Your task to perform on an android device: toggle javascript in the chrome app Image 0: 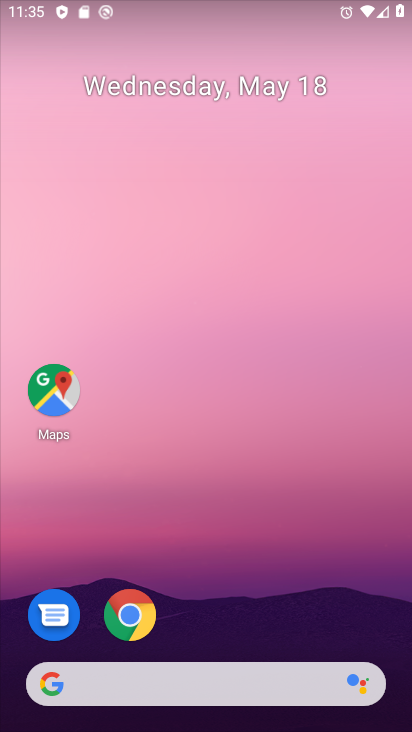
Step 0: click (119, 625)
Your task to perform on an android device: toggle javascript in the chrome app Image 1: 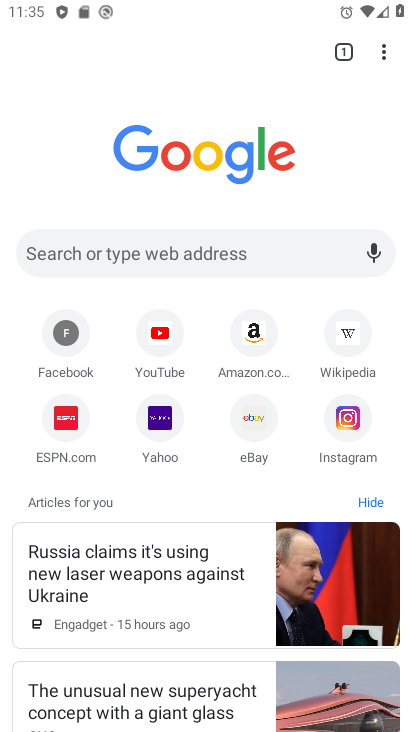
Step 1: click (393, 53)
Your task to perform on an android device: toggle javascript in the chrome app Image 2: 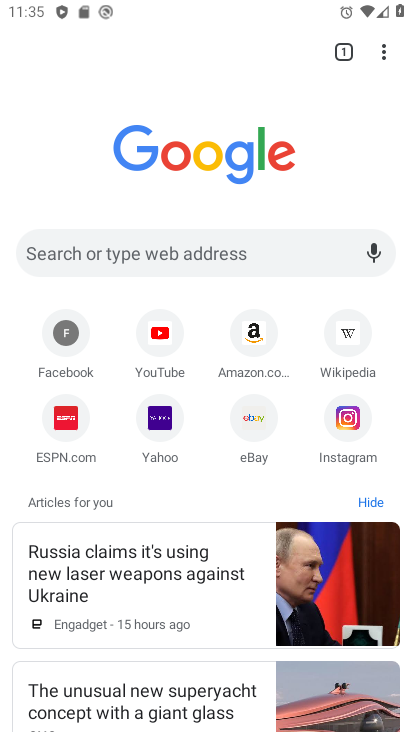
Step 2: click (381, 53)
Your task to perform on an android device: toggle javascript in the chrome app Image 3: 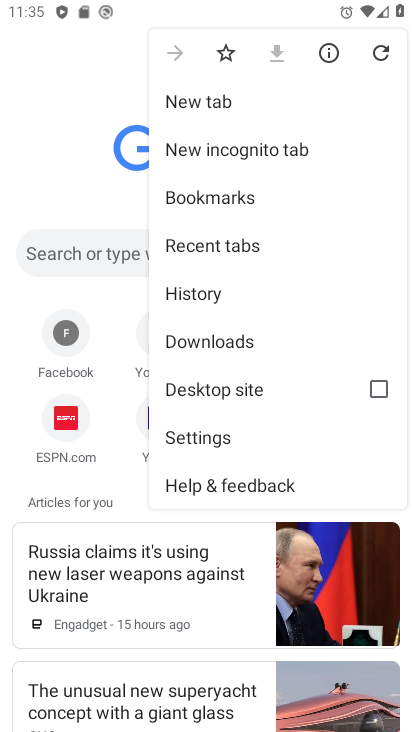
Step 3: click (226, 436)
Your task to perform on an android device: toggle javascript in the chrome app Image 4: 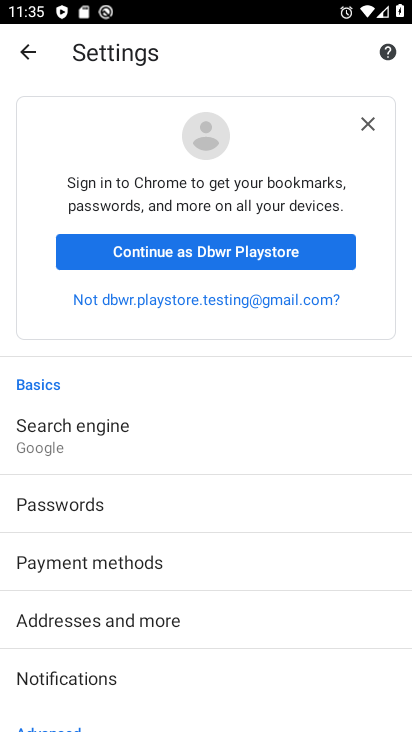
Step 4: click (365, 122)
Your task to perform on an android device: toggle javascript in the chrome app Image 5: 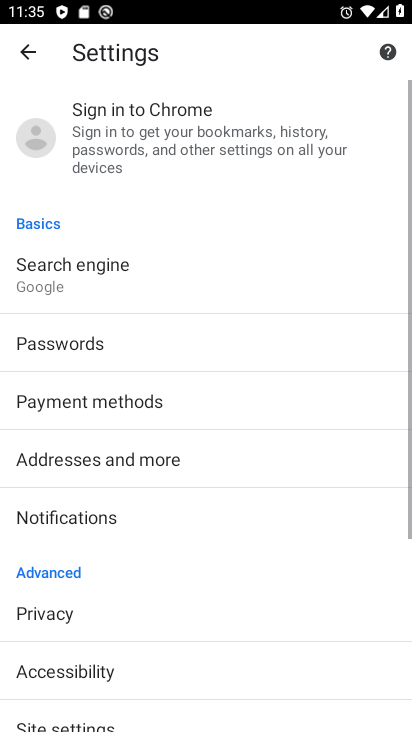
Step 5: drag from (23, 421) to (153, 217)
Your task to perform on an android device: toggle javascript in the chrome app Image 6: 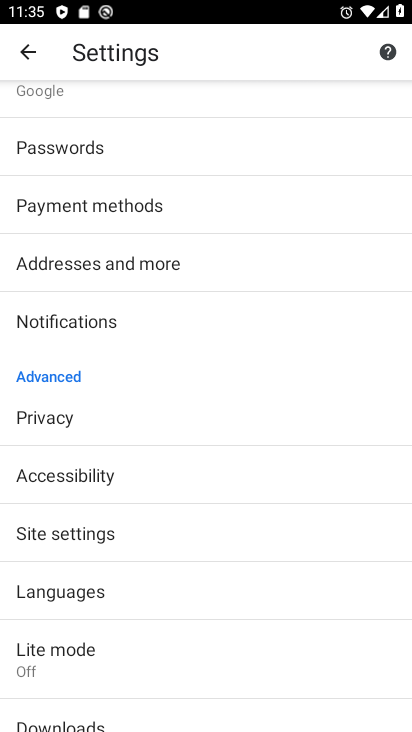
Step 6: click (96, 530)
Your task to perform on an android device: toggle javascript in the chrome app Image 7: 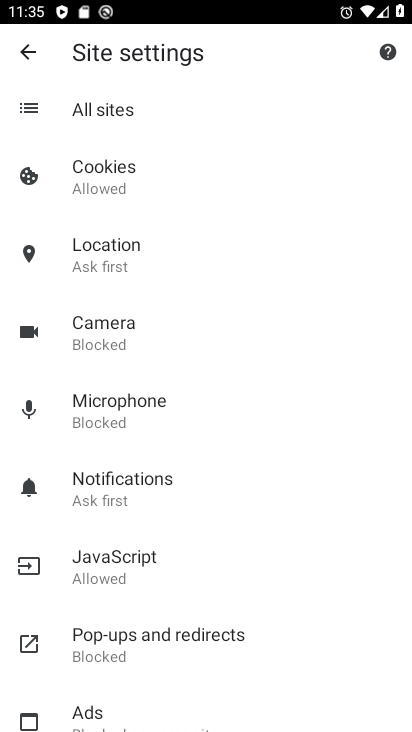
Step 7: click (95, 563)
Your task to perform on an android device: toggle javascript in the chrome app Image 8: 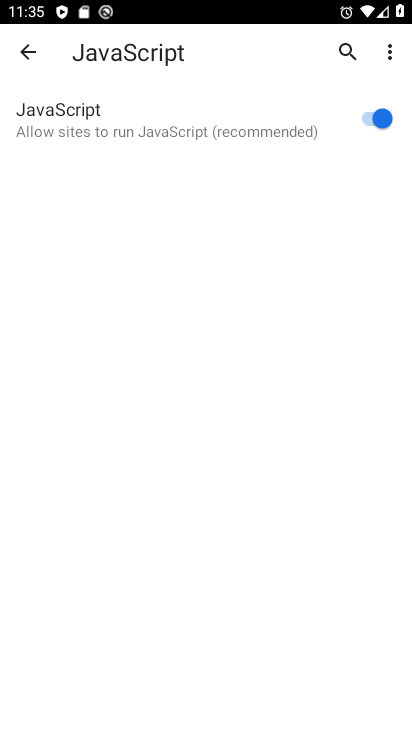
Step 8: click (375, 116)
Your task to perform on an android device: toggle javascript in the chrome app Image 9: 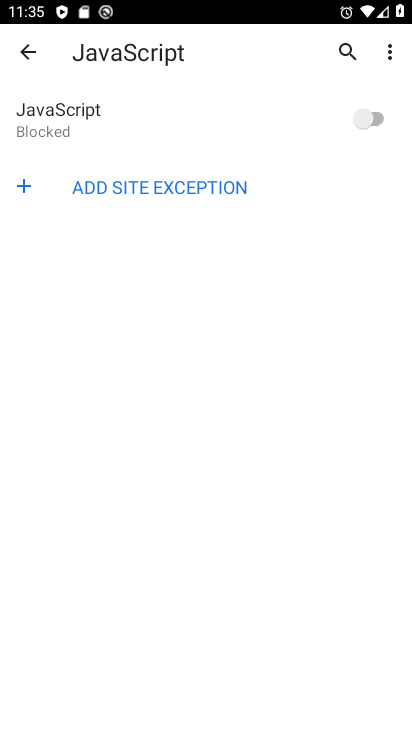
Step 9: task complete